Your task to perform on an android device: Open eBay Image 0: 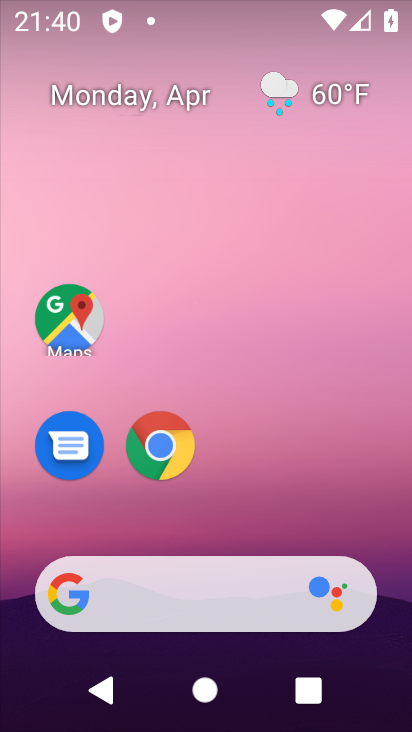
Step 0: click (164, 458)
Your task to perform on an android device: Open eBay Image 1: 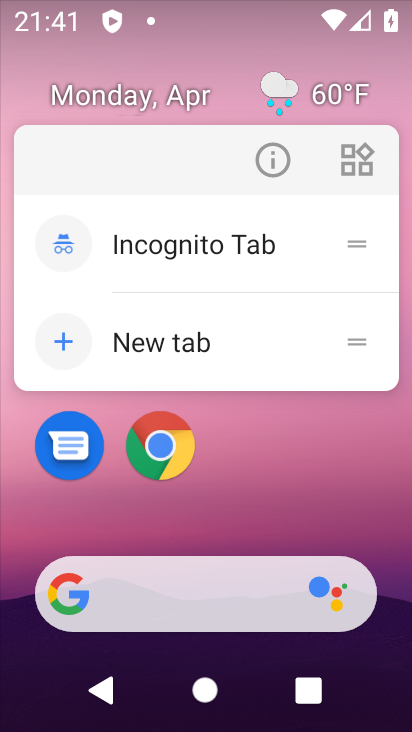
Step 1: click (164, 460)
Your task to perform on an android device: Open eBay Image 2: 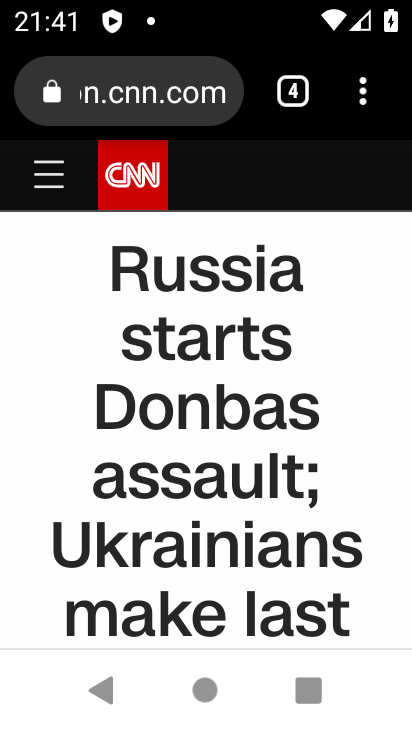
Step 2: click (290, 81)
Your task to perform on an android device: Open eBay Image 3: 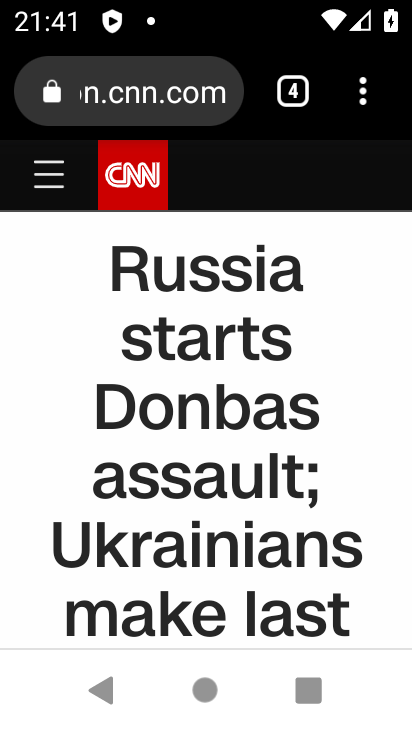
Step 3: click (359, 90)
Your task to perform on an android device: Open eBay Image 4: 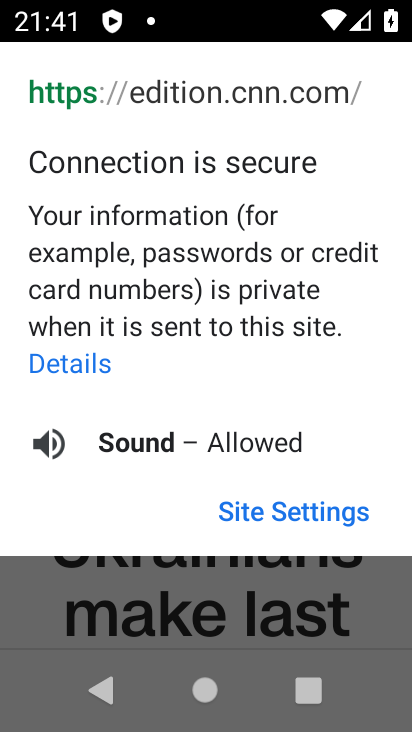
Step 4: press back button
Your task to perform on an android device: Open eBay Image 5: 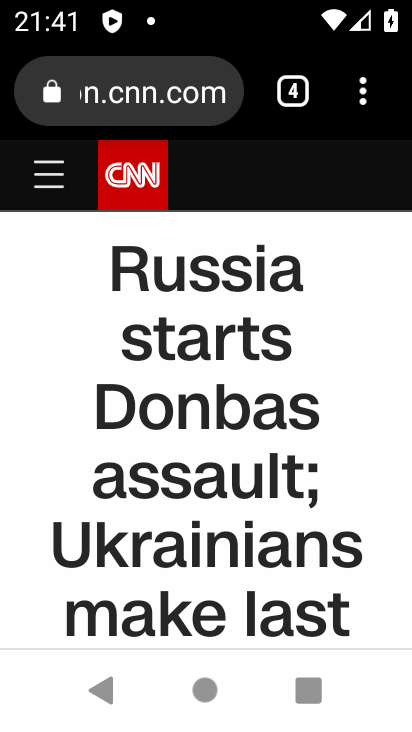
Step 5: click (369, 104)
Your task to perform on an android device: Open eBay Image 6: 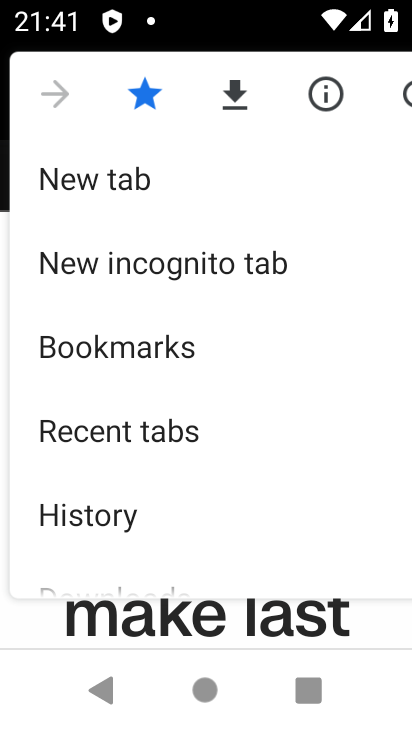
Step 6: click (290, 170)
Your task to perform on an android device: Open eBay Image 7: 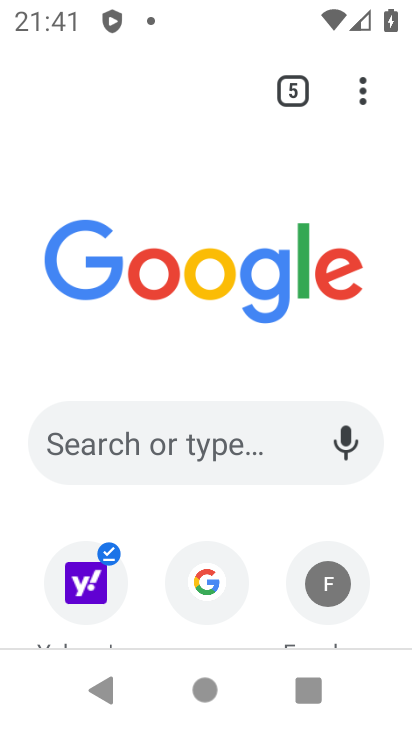
Step 7: click (160, 427)
Your task to perform on an android device: Open eBay Image 8: 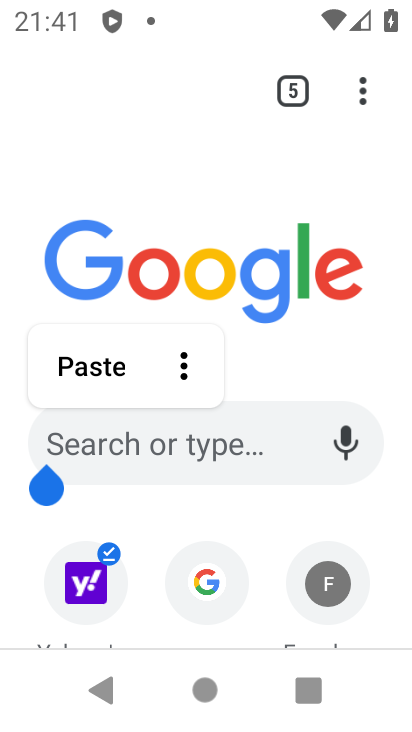
Step 8: click (179, 445)
Your task to perform on an android device: Open eBay Image 9: 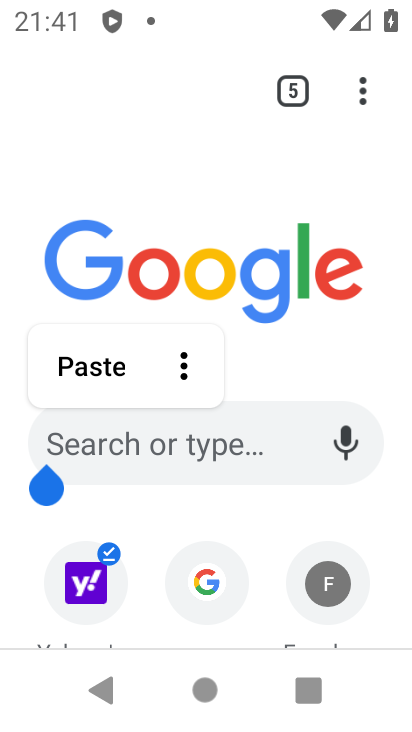
Step 9: click (179, 445)
Your task to perform on an android device: Open eBay Image 10: 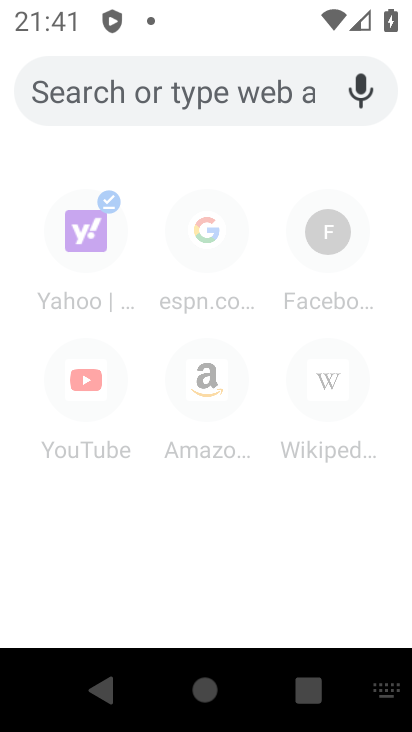
Step 10: type "eBay"
Your task to perform on an android device: Open eBay Image 11: 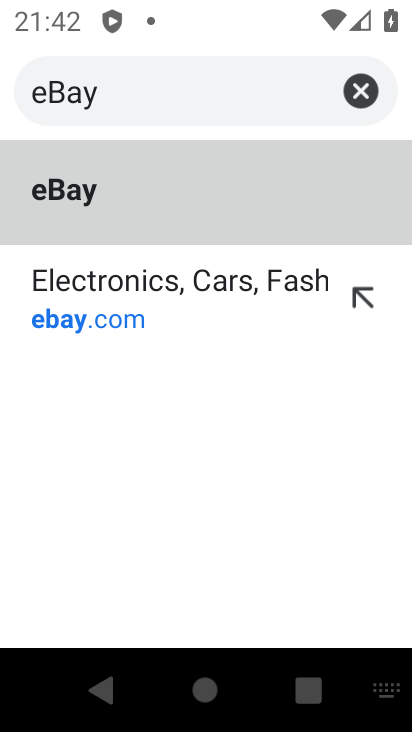
Step 11: click (218, 281)
Your task to perform on an android device: Open eBay Image 12: 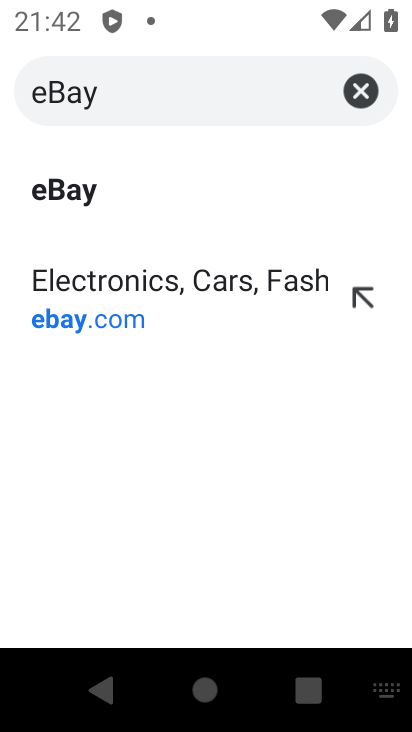
Step 12: click (81, 303)
Your task to perform on an android device: Open eBay Image 13: 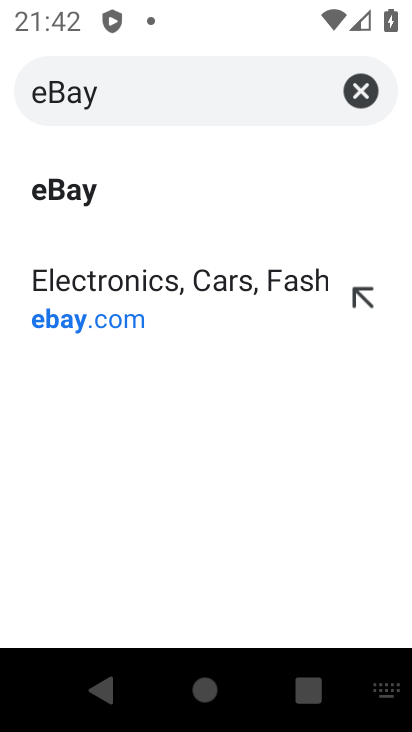
Step 13: click (366, 288)
Your task to perform on an android device: Open eBay Image 14: 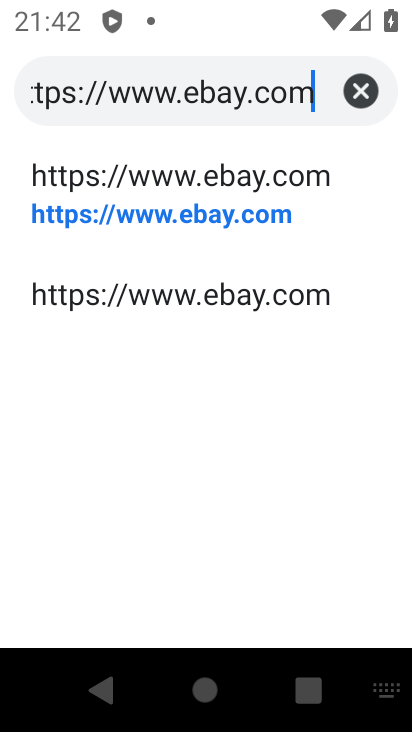
Step 14: click (248, 199)
Your task to perform on an android device: Open eBay Image 15: 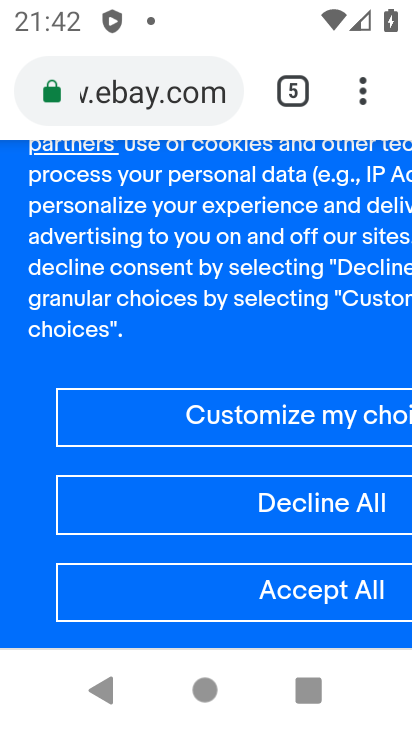
Step 15: task complete